Your task to perform on an android device: check out phone information Image 0: 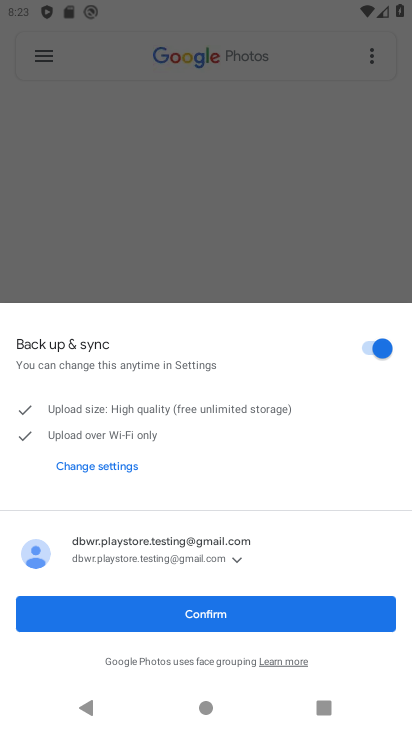
Step 0: press home button
Your task to perform on an android device: check out phone information Image 1: 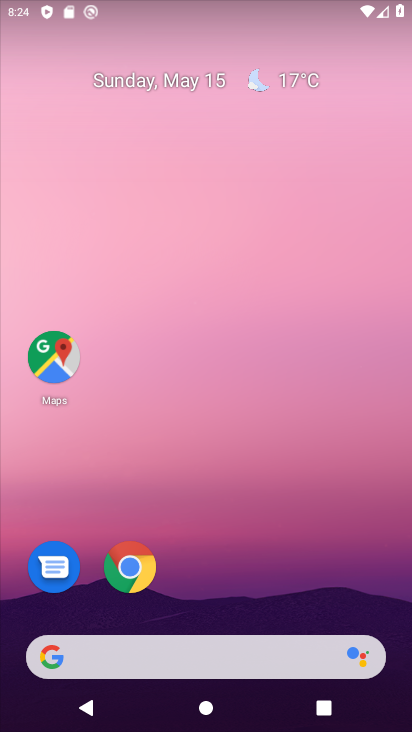
Step 1: drag from (244, 666) to (192, 206)
Your task to perform on an android device: check out phone information Image 2: 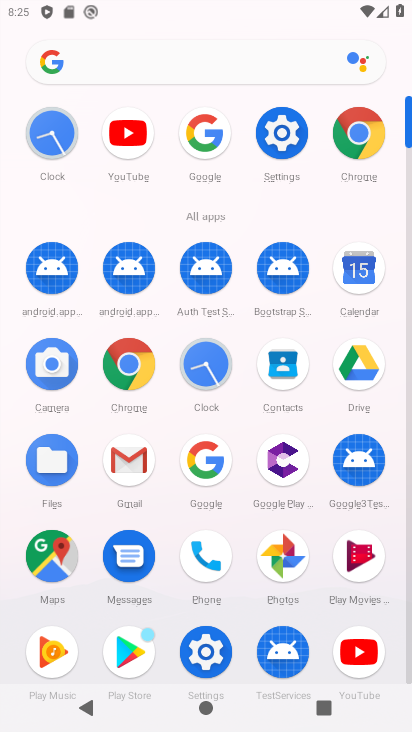
Step 2: click (191, 652)
Your task to perform on an android device: check out phone information Image 3: 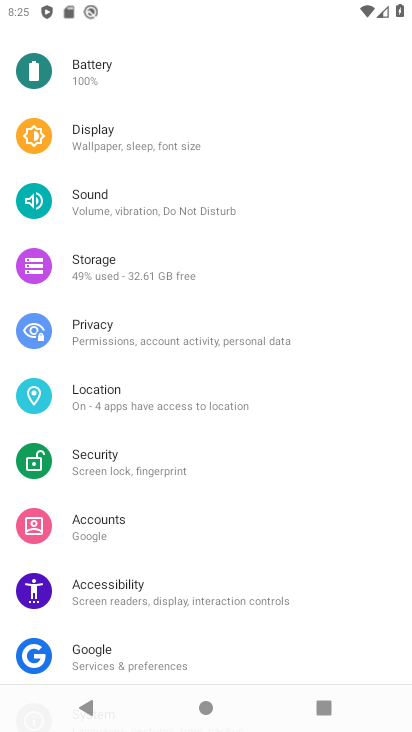
Step 3: drag from (104, 645) to (104, 81)
Your task to perform on an android device: check out phone information Image 4: 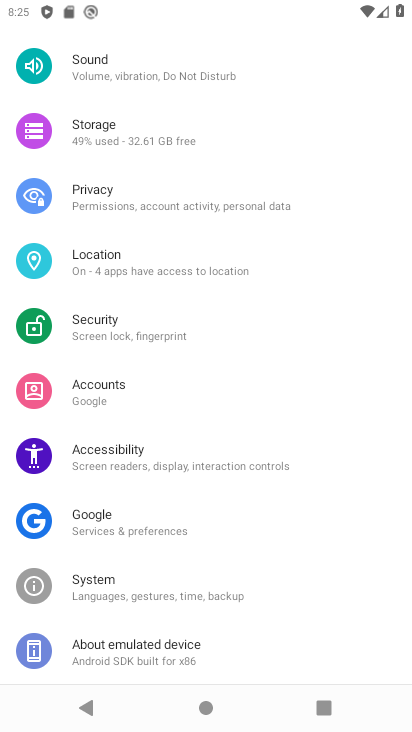
Step 4: click (185, 650)
Your task to perform on an android device: check out phone information Image 5: 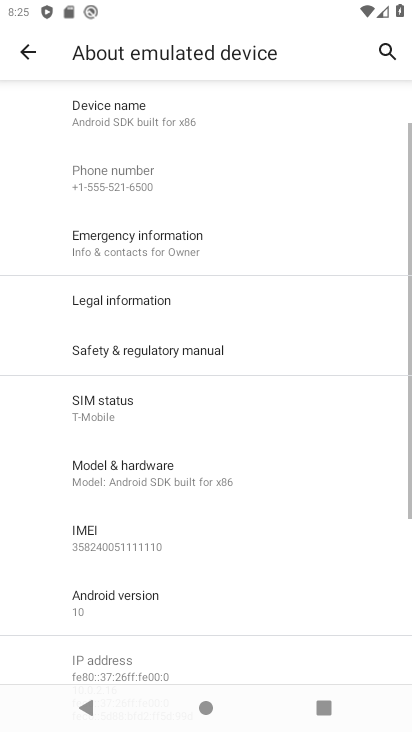
Step 5: task complete